Your task to perform on an android device: Go to CNN.com Image 0: 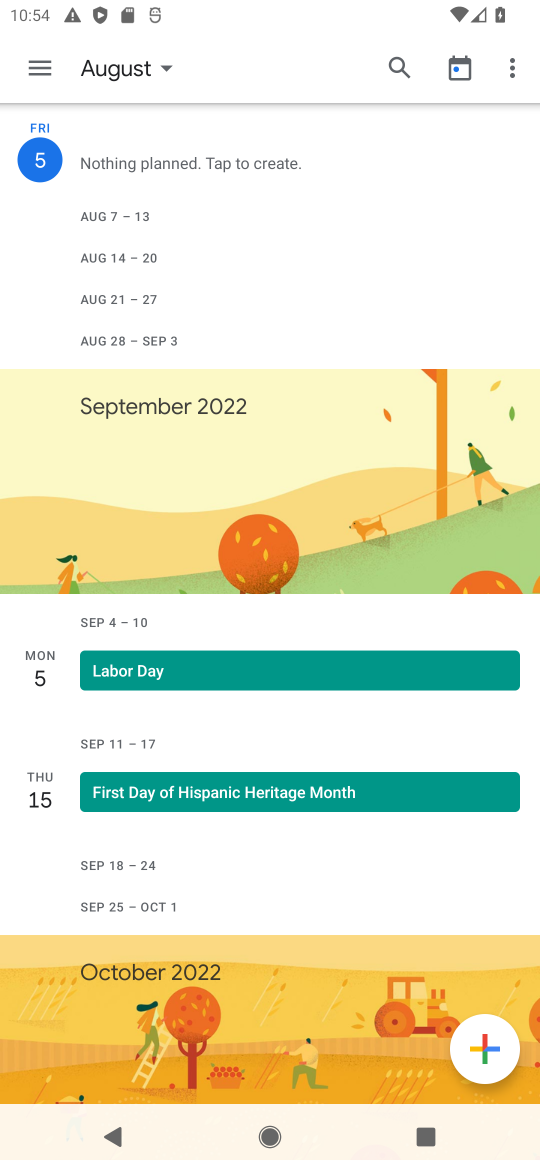
Step 0: press home button
Your task to perform on an android device: Go to CNN.com Image 1: 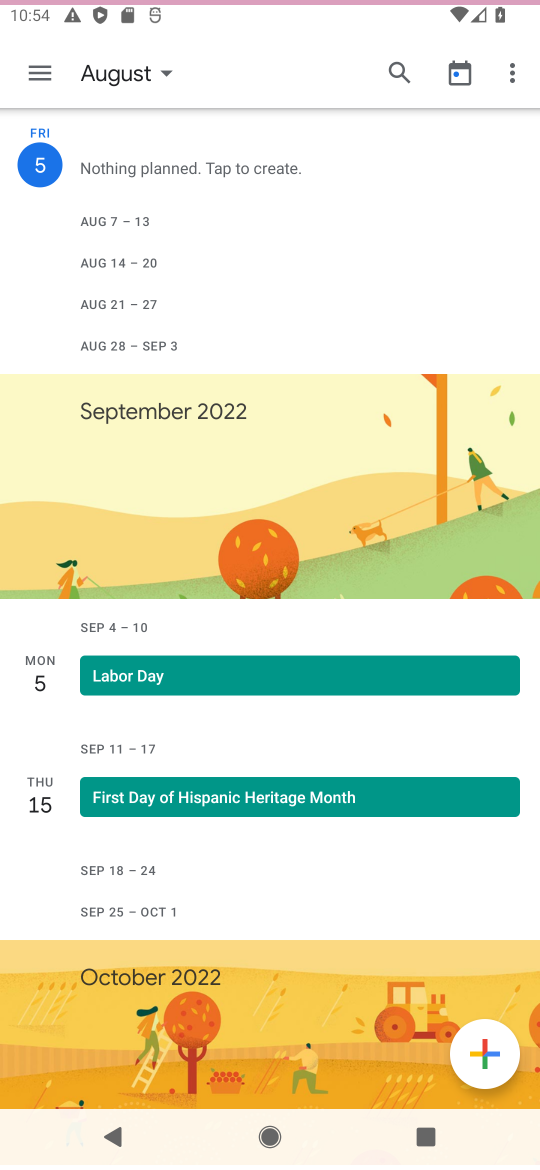
Step 1: press home button
Your task to perform on an android device: Go to CNN.com Image 2: 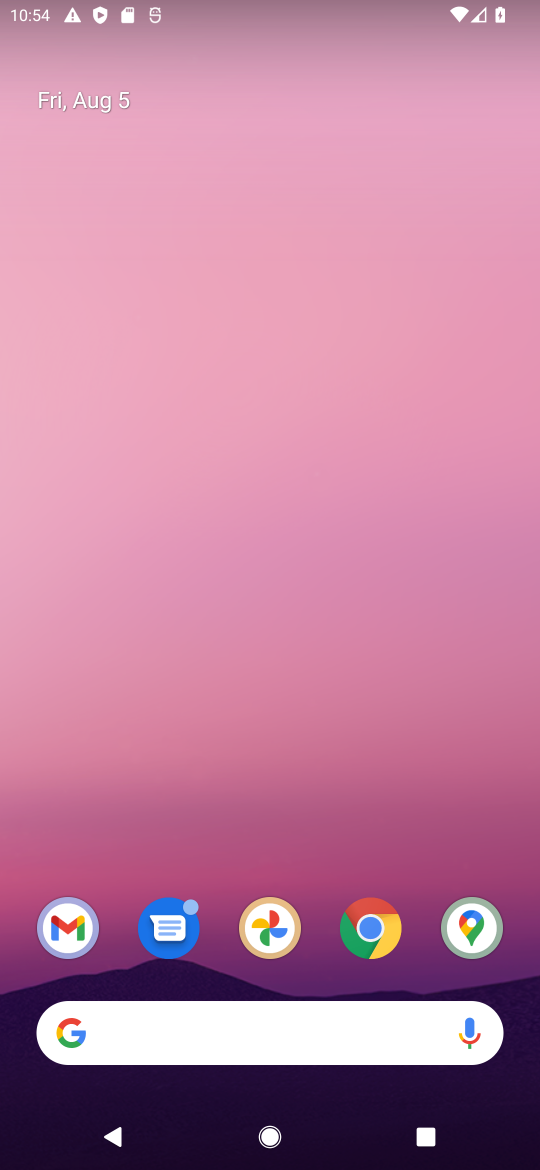
Step 2: click (359, 931)
Your task to perform on an android device: Go to CNN.com Image 3: 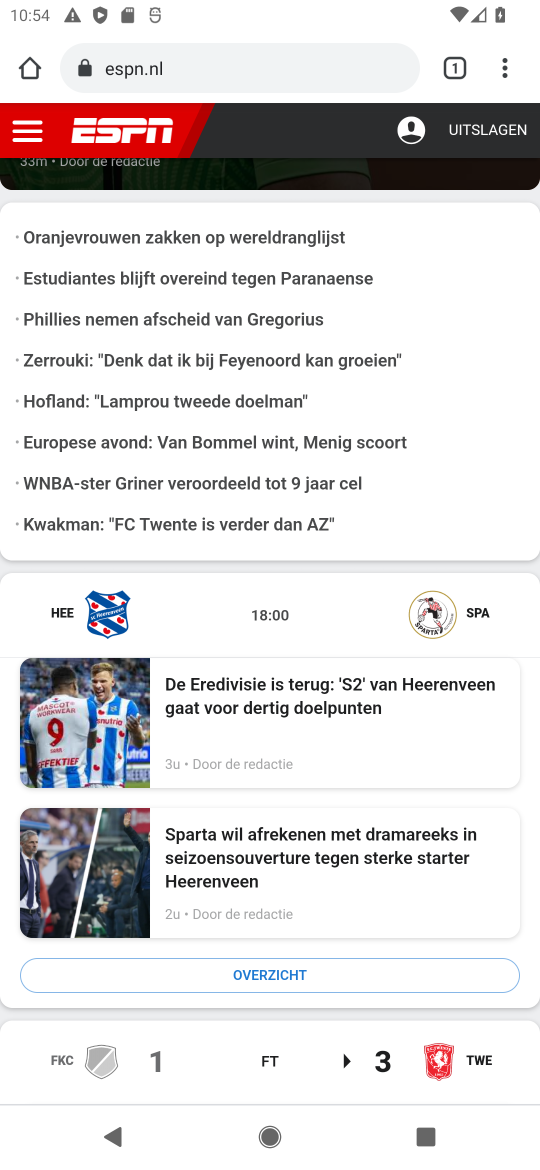
Step 3: click (460, 63)
Your task to perform on an android device: Go to CNN.com Image 4: 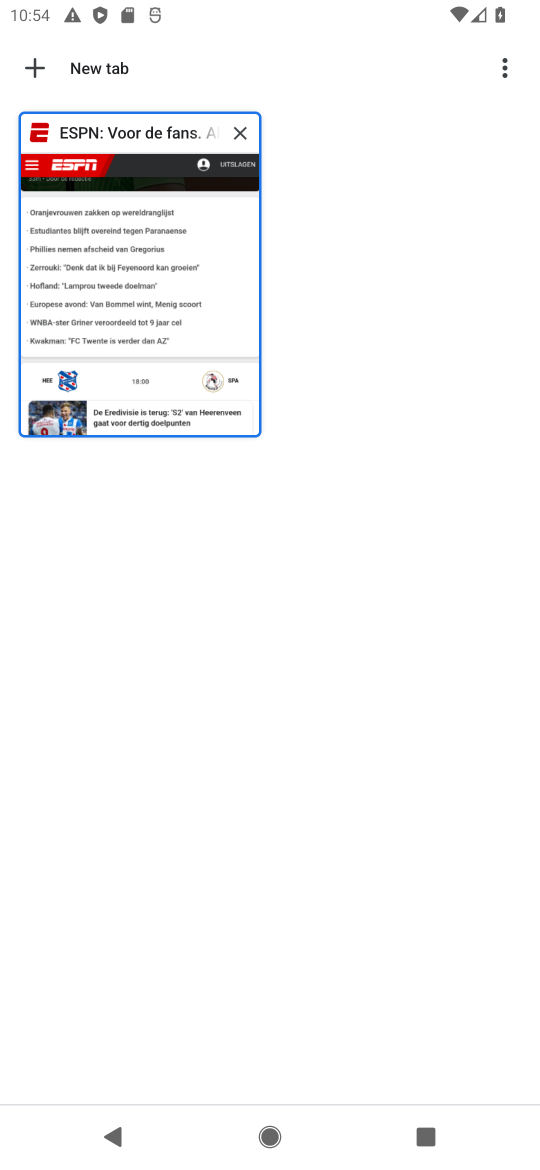
Step 4: click (36, 71)
Your task to perform on an android device: Go to CNN.com Image 5: 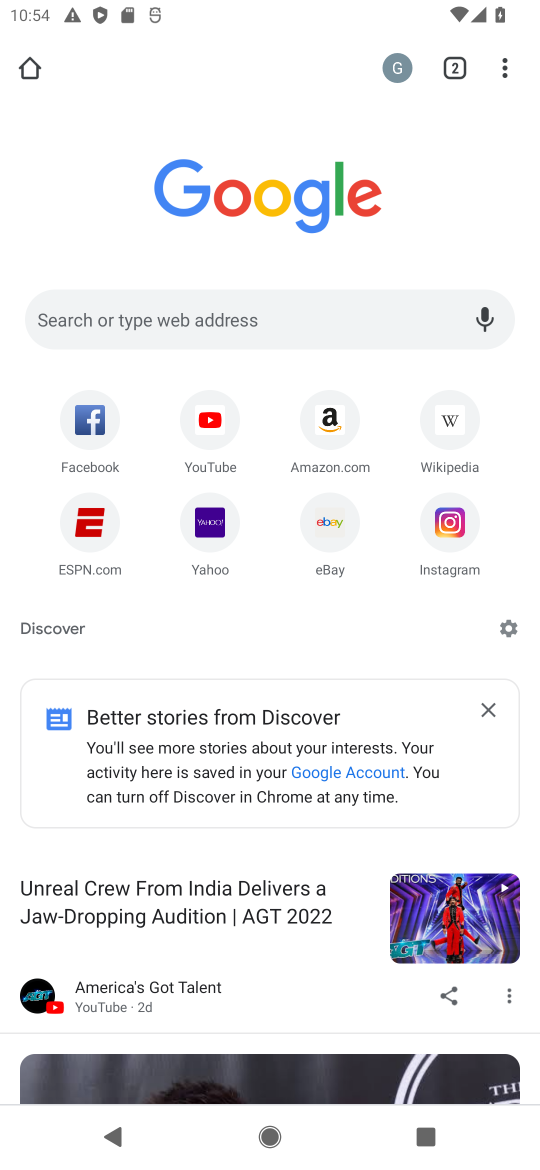
Step 5: click (177, 311)
Your task to perform on an android device: Go to CNN.com Image 6: 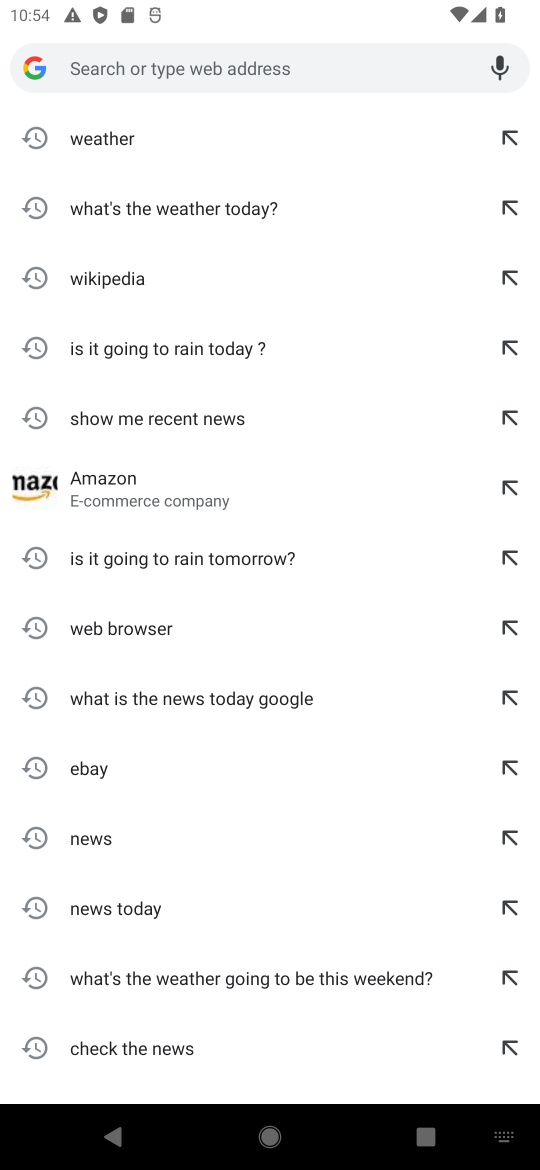
Step 6: type "CNN"
Your task to perform on an android device: Go to CNN.com Image 7: 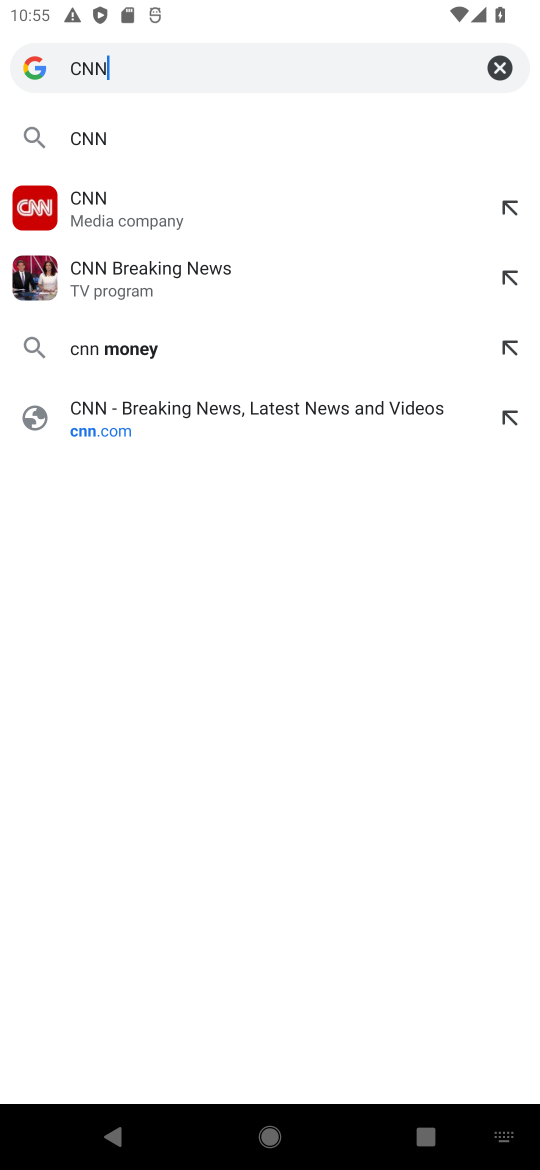
Step 7: click (149, 217)
Your task to perform on an android device: Go to CNN.com Image 8: 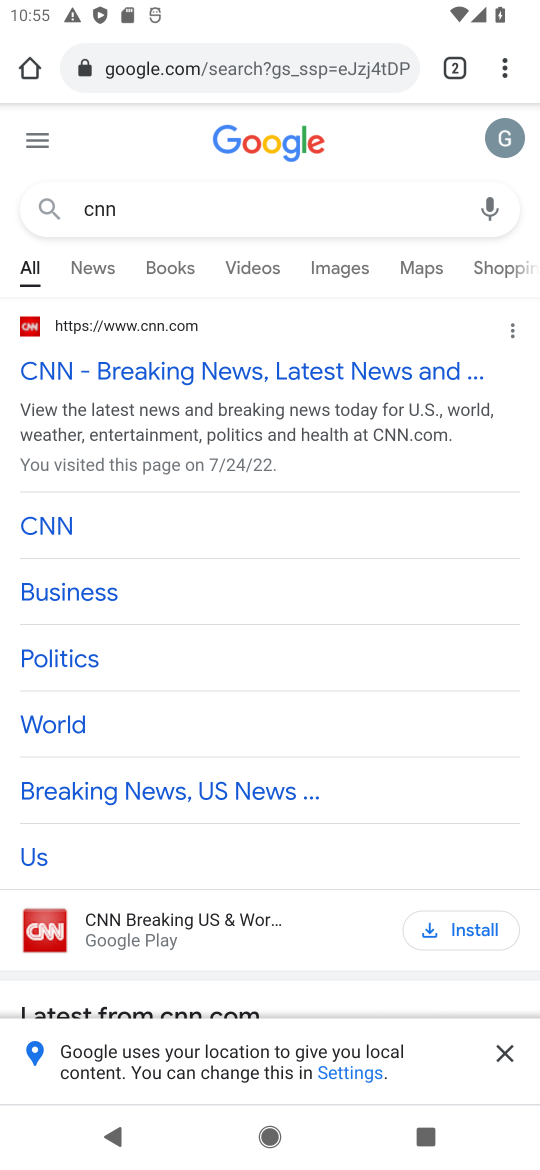
Step 8: task complete